Your task to perform on an android device: check google app version Image 0: 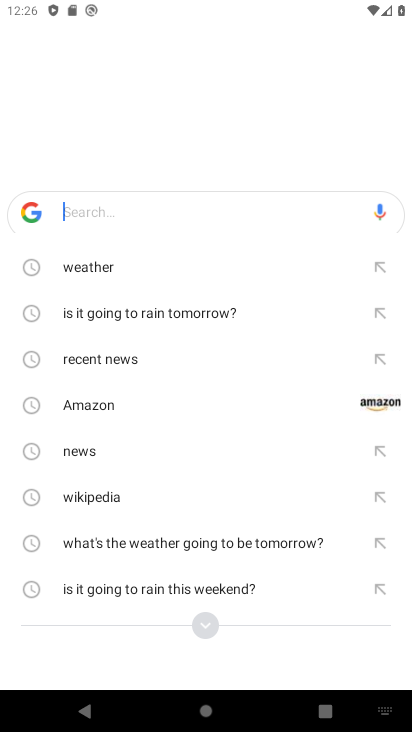
Step 0: press home button
Your task to perform on an android device: check google app version Image 1: 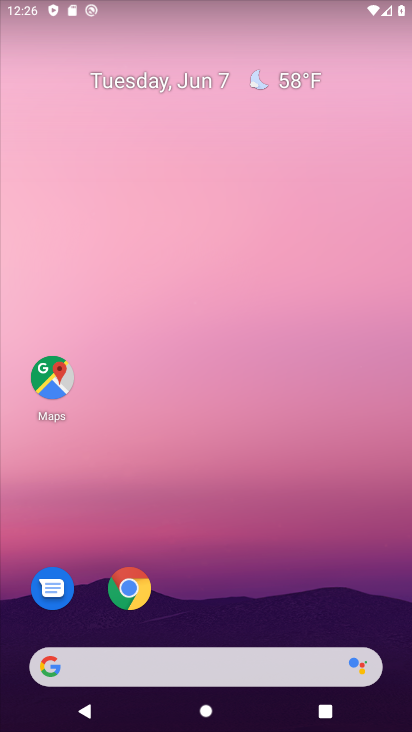
Step 1: press home button
Your task to perform on an android device: check google app version Image 2: 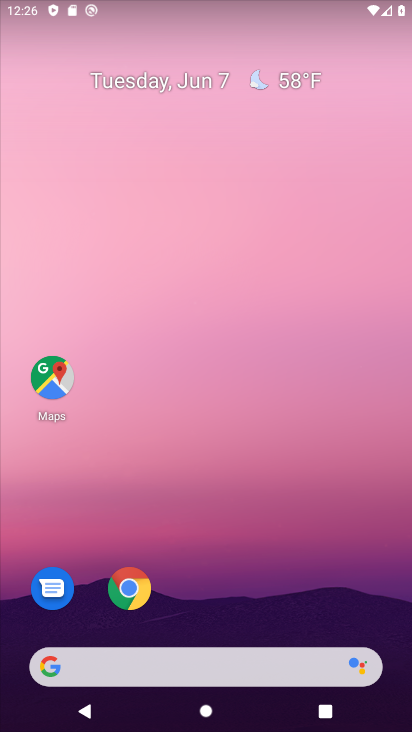
Step 2: drag from (322, 610) to (250, 128)
Your task to perform on an android device: check google app version Image 3: 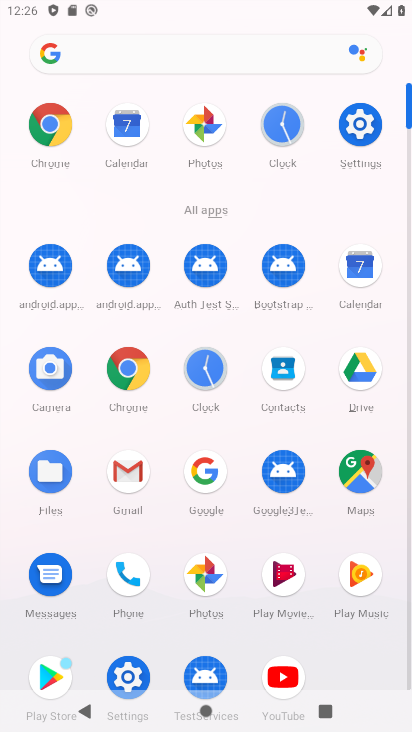
Step 3: click (139, 382)
Your task to perform on an android device: check google app version Image 4: 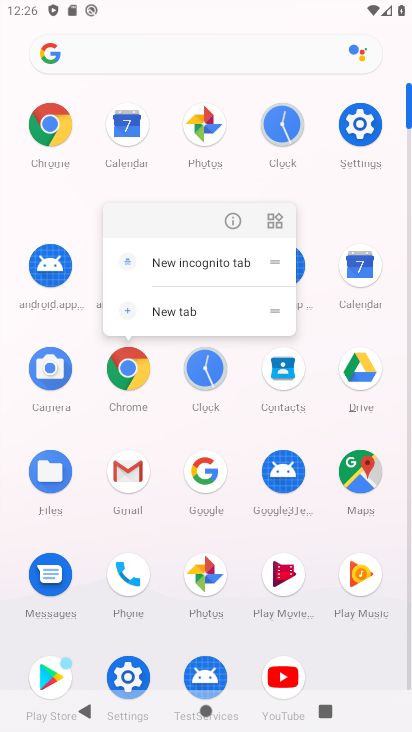
Step 4: click (241, 227)
Your task to perform on an android device: check google app version Image 5: 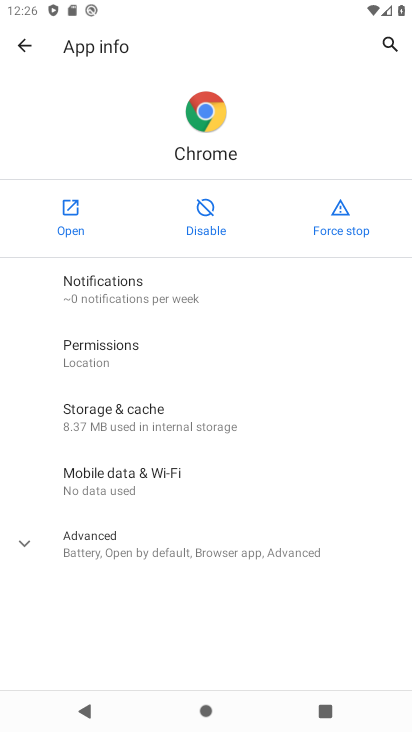
Step 5: click (222, 525)
Your task to perform on an android device: check google app version Image 6: 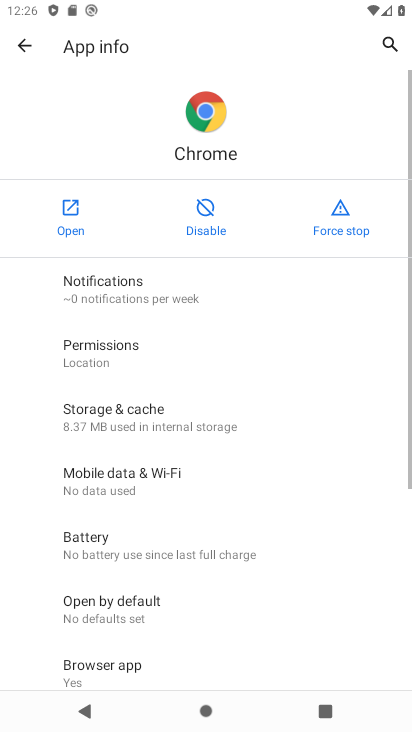
Step 6: task complete